Your task to perform on an android device: Open calendar and show me the fourth week of next month Image 0: 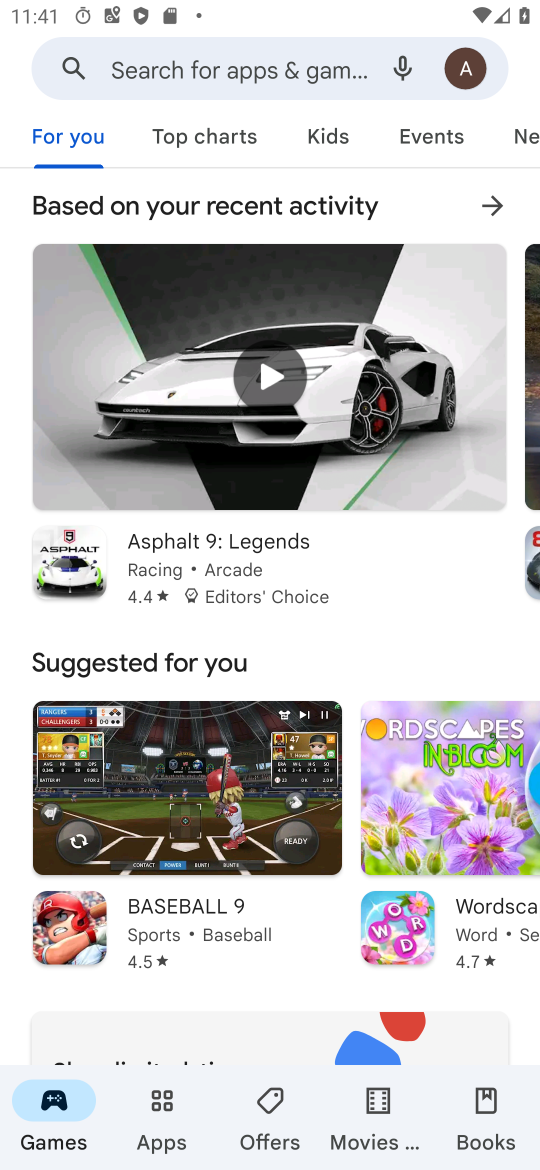
Step 0: press back button
Your task to perform on an android device: Open calendar and show me the fourth week of next month Image 1: 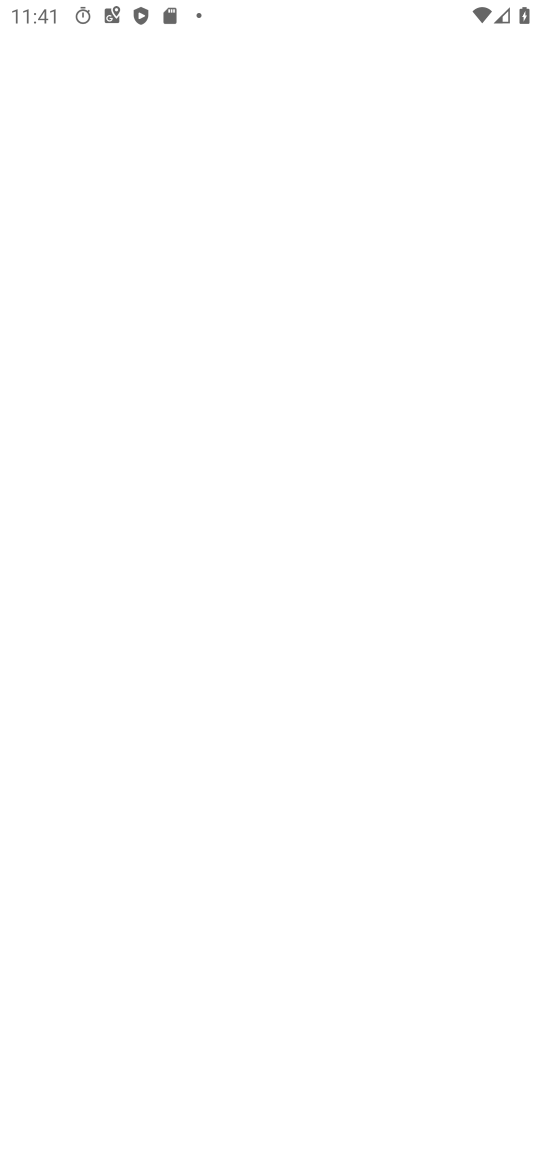
Step 1: press back button
Your task to perform on an android device: Open calendar and show me the fourth week of next month Image 2: 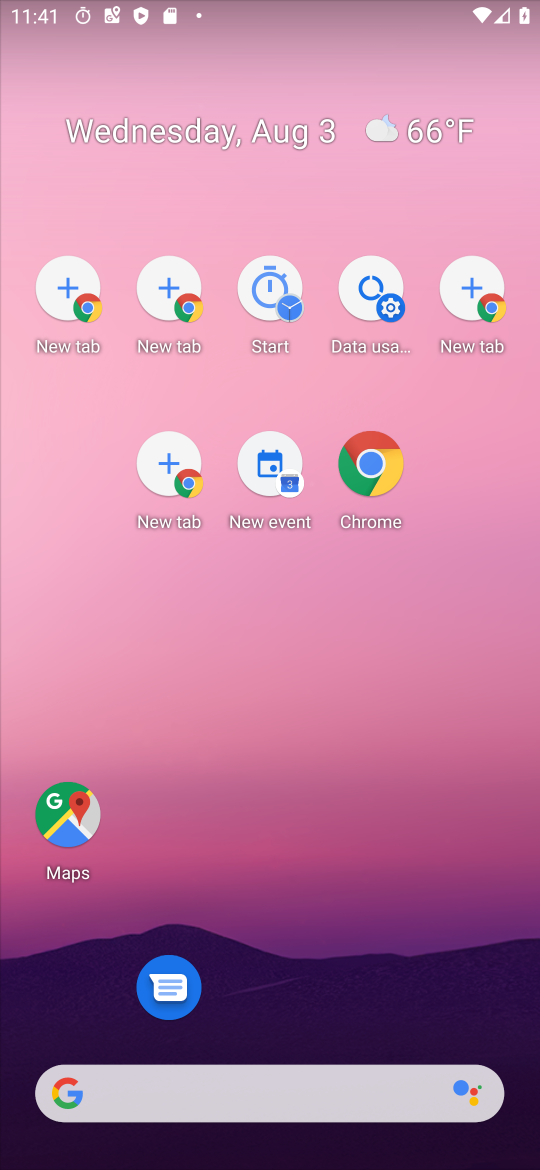
Step 2: drag from (323, 879) to (314, 324)
Your task to perform on an android device: Open calendar and show me the fourth week of next month Image 3: 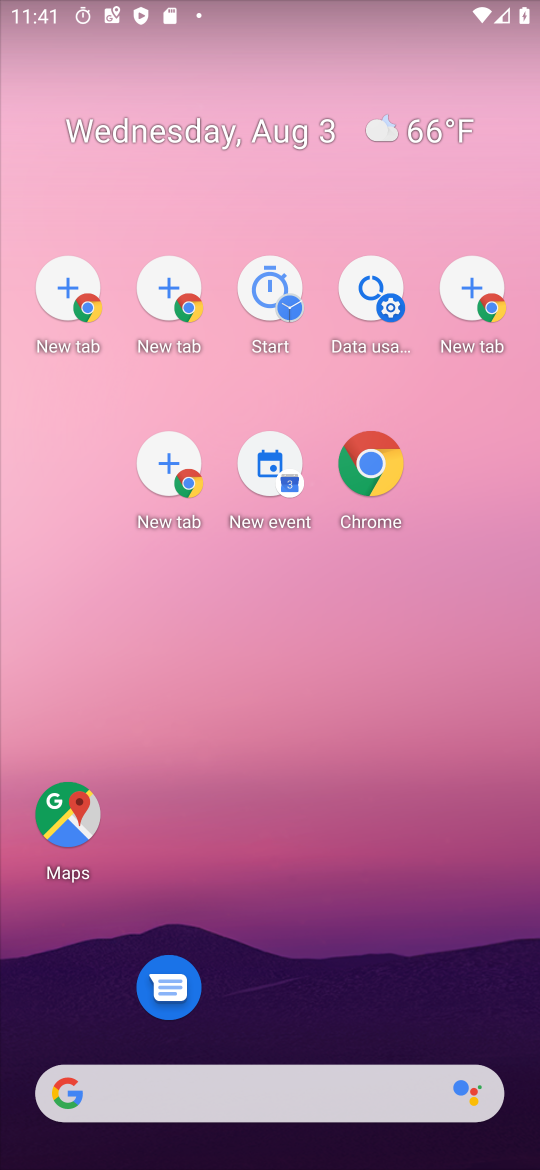
Step 3: click (276, 233)
Your task to perform on an android device: Open calendar and show me the fourth week of next month Image 4: 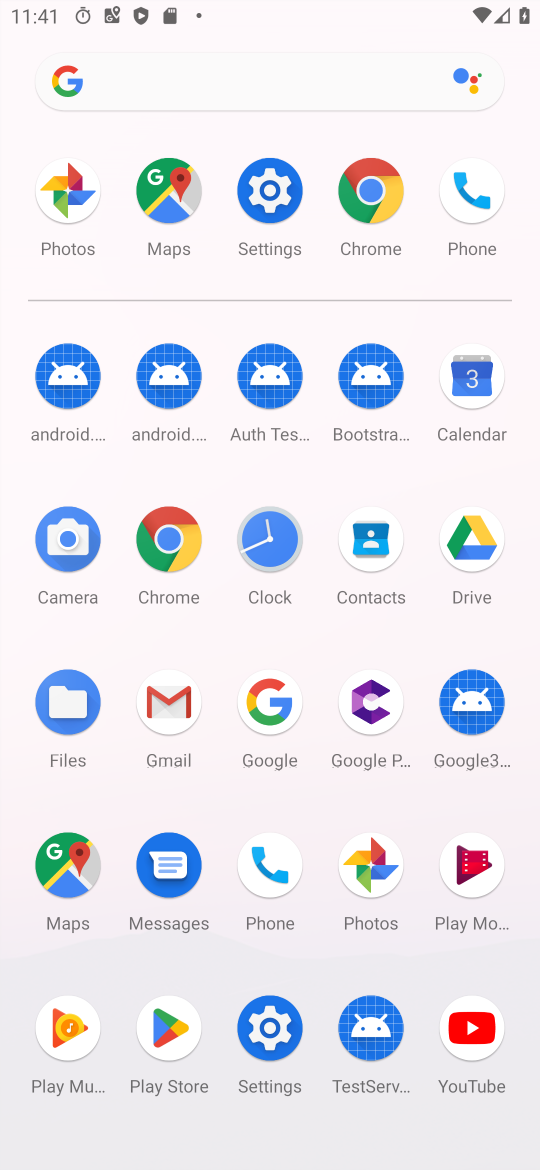
Step 4: click (294, 82)
Your task to perform on an android device: Open calendar and show me the fourth week of next month Image 5: 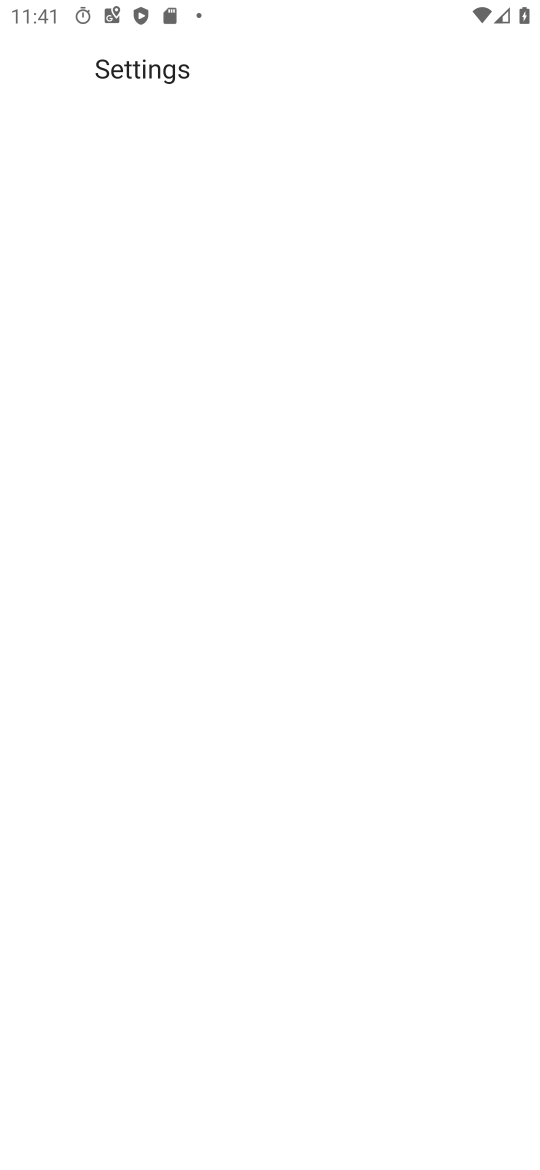
Step 5: drag from (278, 532) to (215, 2)
Your task to perform on an android device: Open calendar and show me the fourth week of next month Image 6: 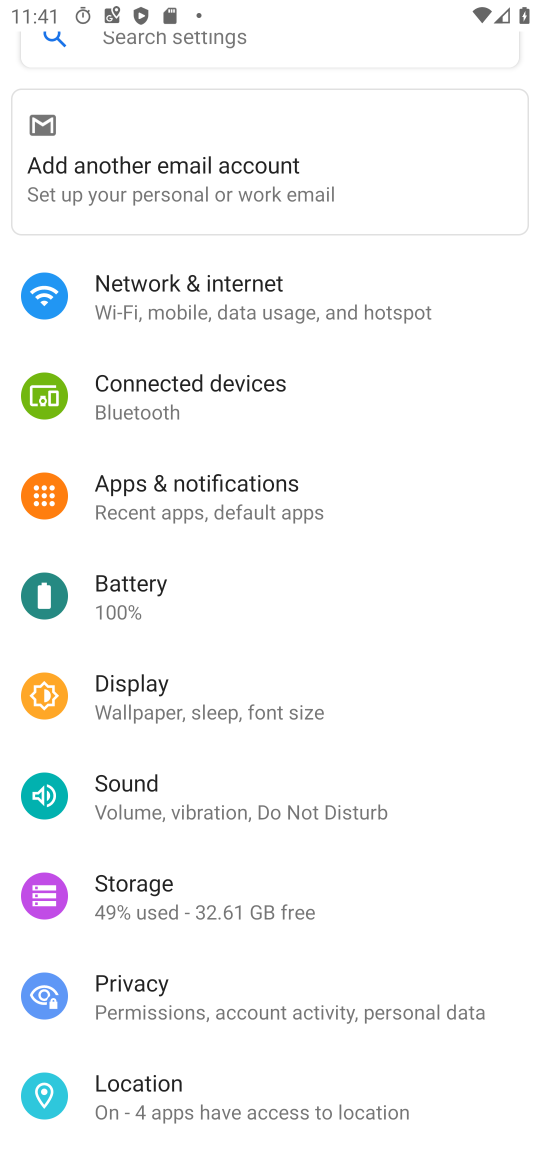
Step 6: press back button
Your task to perform on an android device: Open calendar and show me the fourth week of next month Image 7: 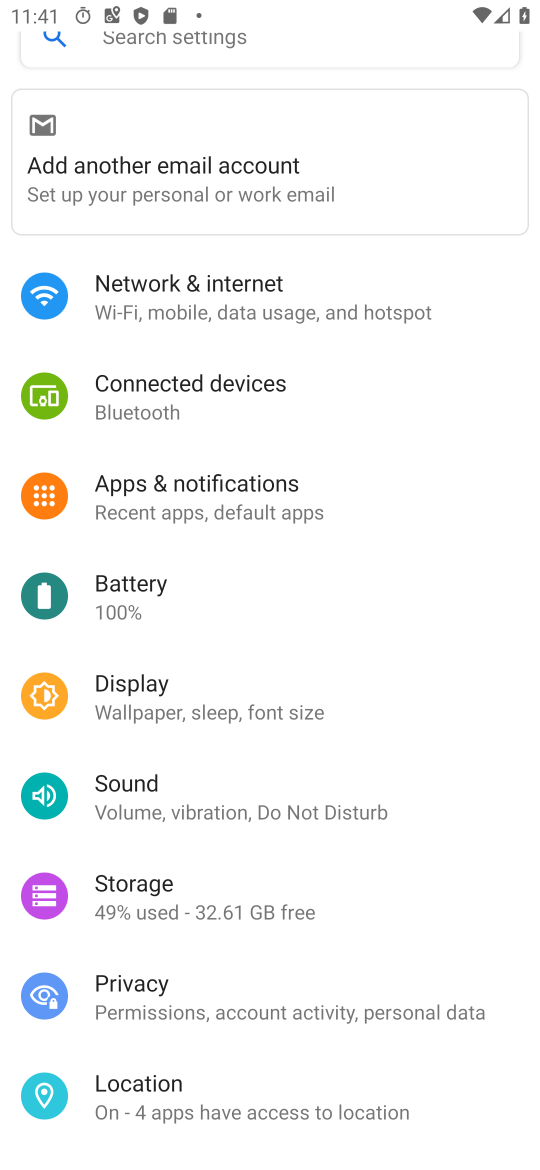
Step 7: press back button
Your task to perform on an android device: Open calendar and show me the fourth week of next month Image 8: 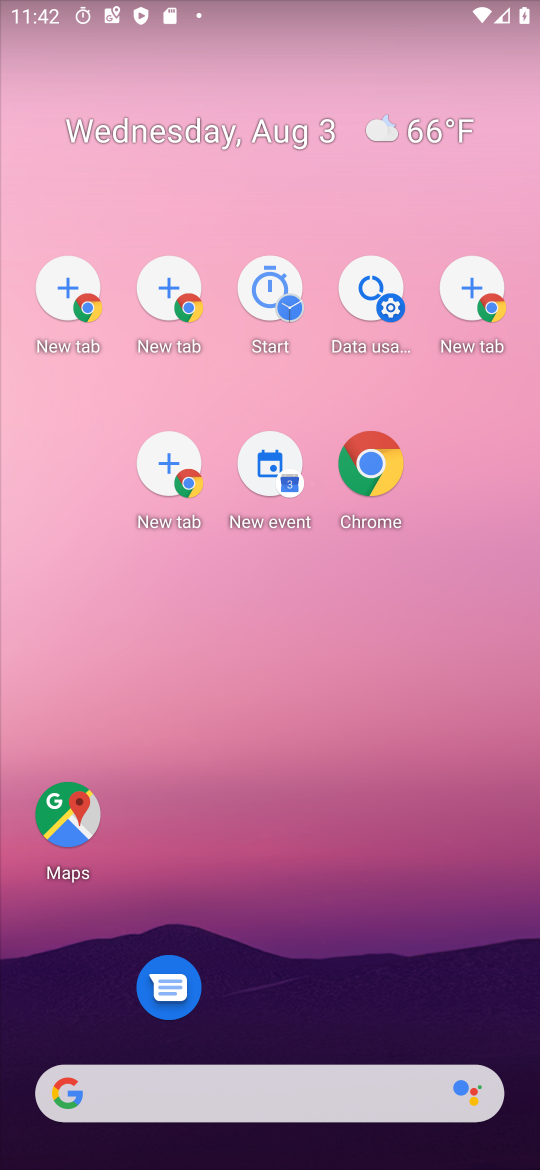
Step 8: drag from (345, 774) to (340, 215)
Your task to perform on an android device: Open calendar and show me the fourth week of next month Image 9: 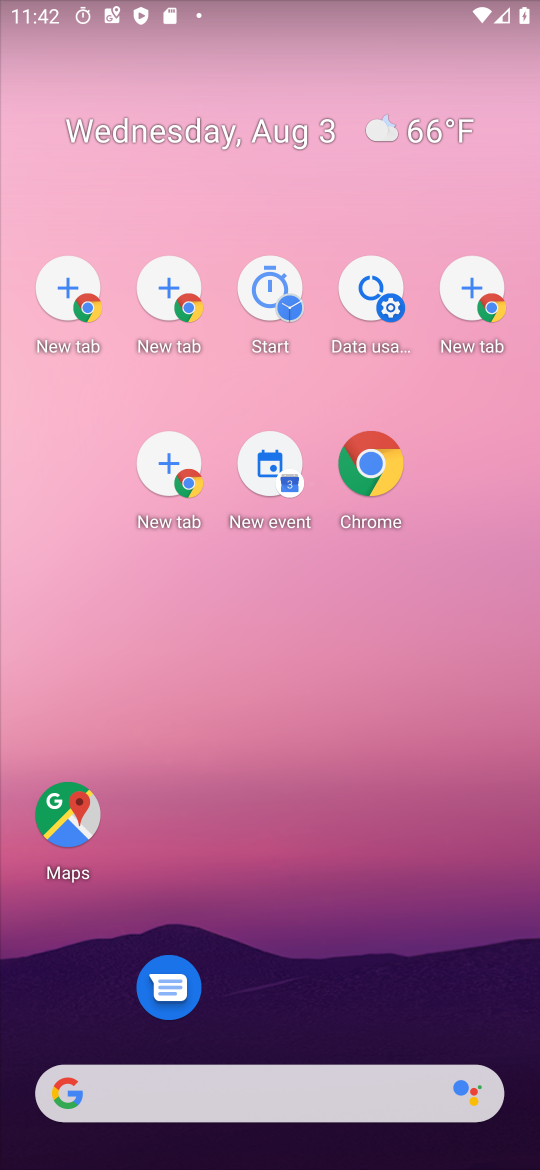
Step 9: drag from (386, 385) to (386, 192)
Your task to perform on an android device: Open calendar and show me the fourth week of next month Image 10: 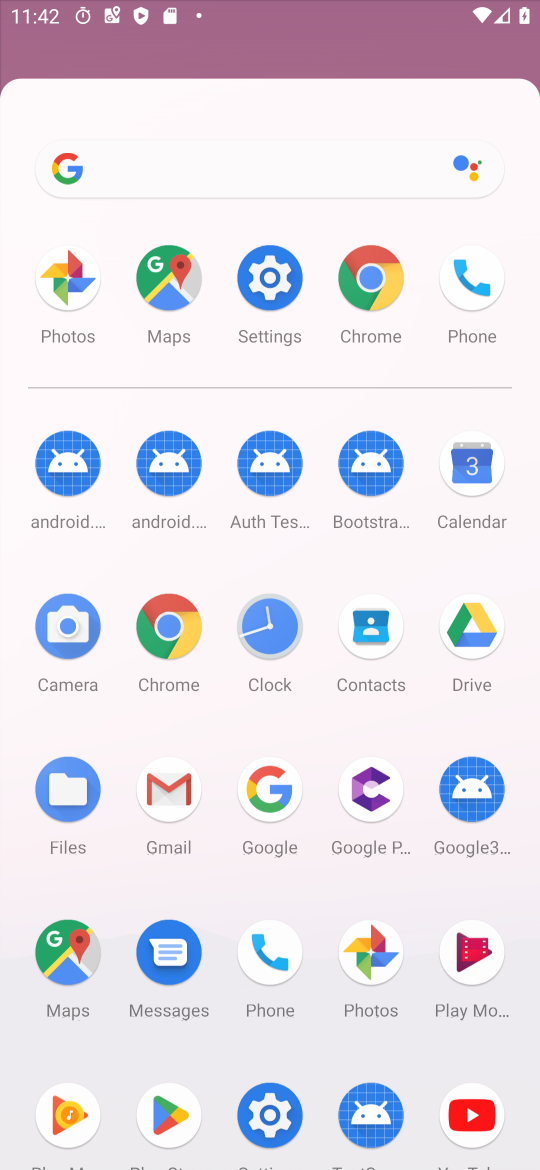
Step 10: drag from (364, 603) to (345, 362)
Your task to perform on an android device: Open calendar and show me the fourth week of next month Image 11: 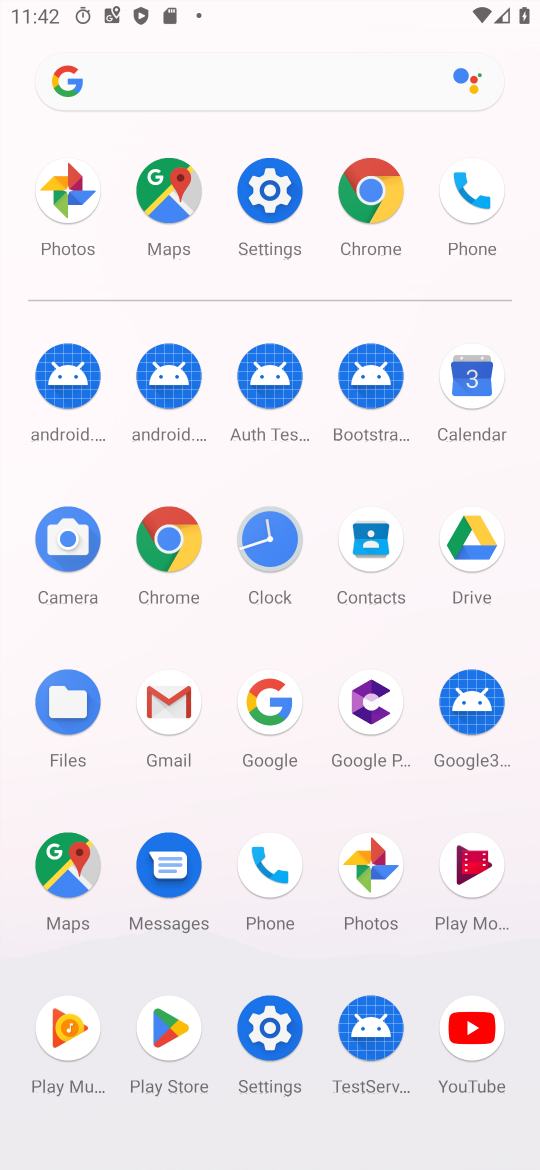
Step 11: drag from (308, 648) to (284, 498)
Your task to perform on an android device: Open calendar and show me the fourth week of next month Image 12: 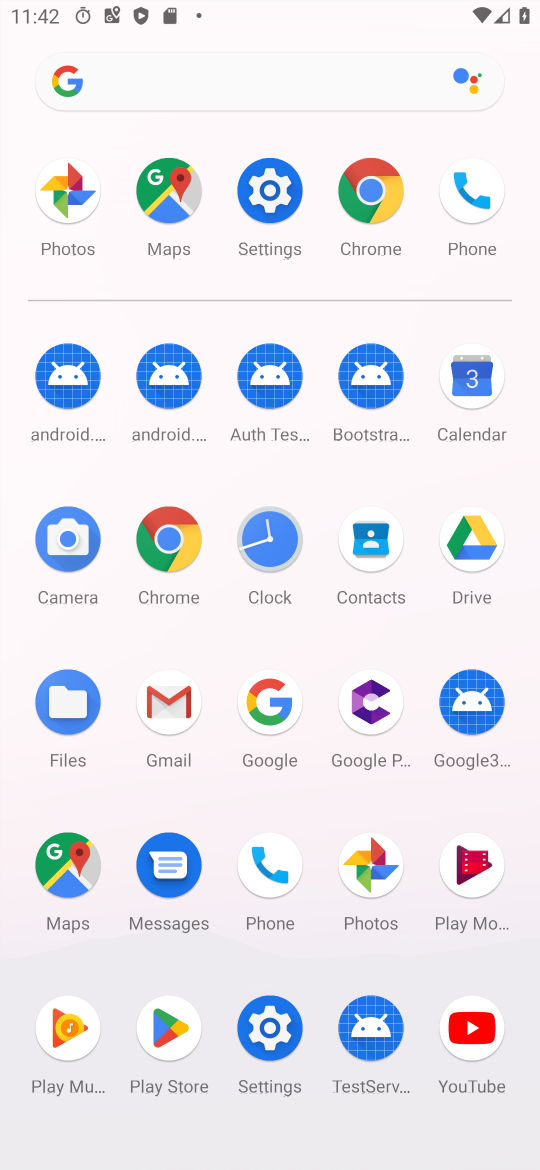
Step 12: click (468, 380)
Your task to perform on an android device: Open calendar and show me the fourth week of next month Image 13: 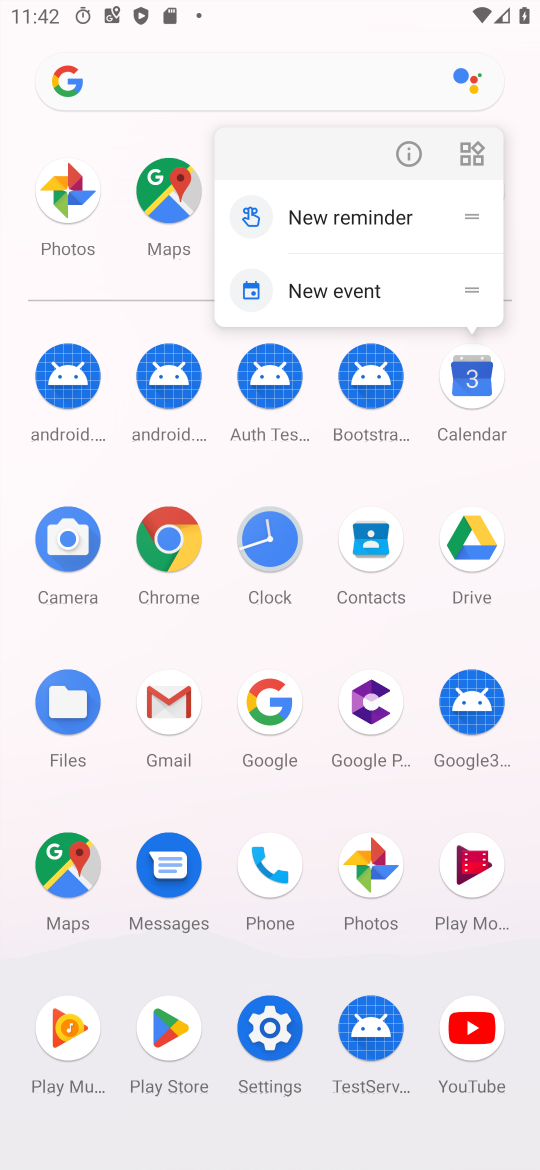
Step 13: click (452, 388)
Your task to perform on an android device: Open calendar and show me the fourth week of next month Image 14: 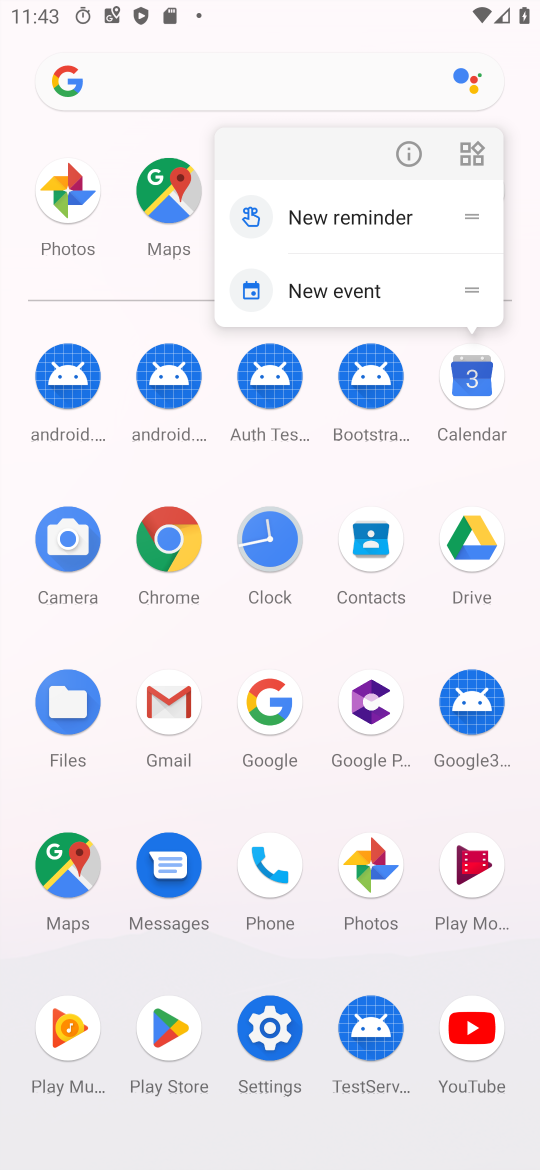
Step 14: click (469, 410)
Your task to perform on an android device: Open calendar and show me the fourth week of next month Image 15: 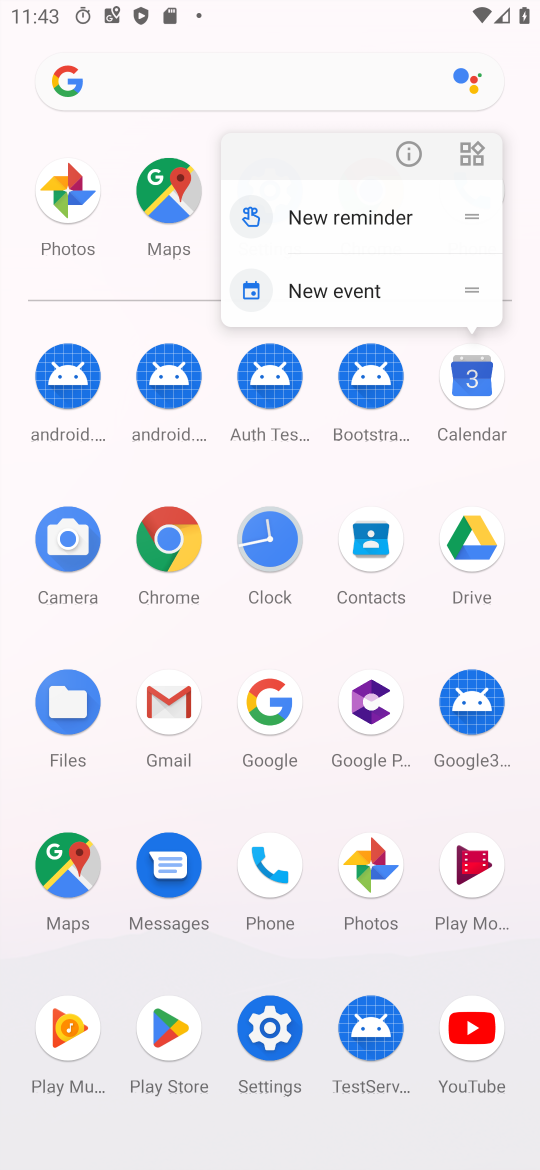
Step 15: click (469, 410)
Your task to perform on an android device: Open calendar and show me the fourth week of next month Image 16: 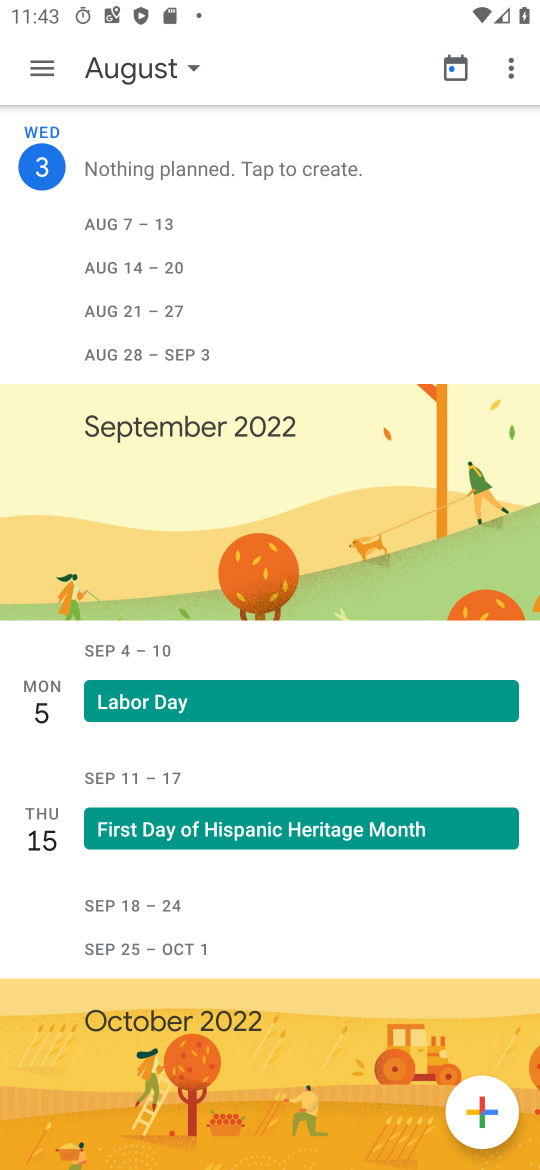
Step 16: click (198, 67)
Your task to perform on an android device: Open calendar and show me the fourth week of next month Image 17: 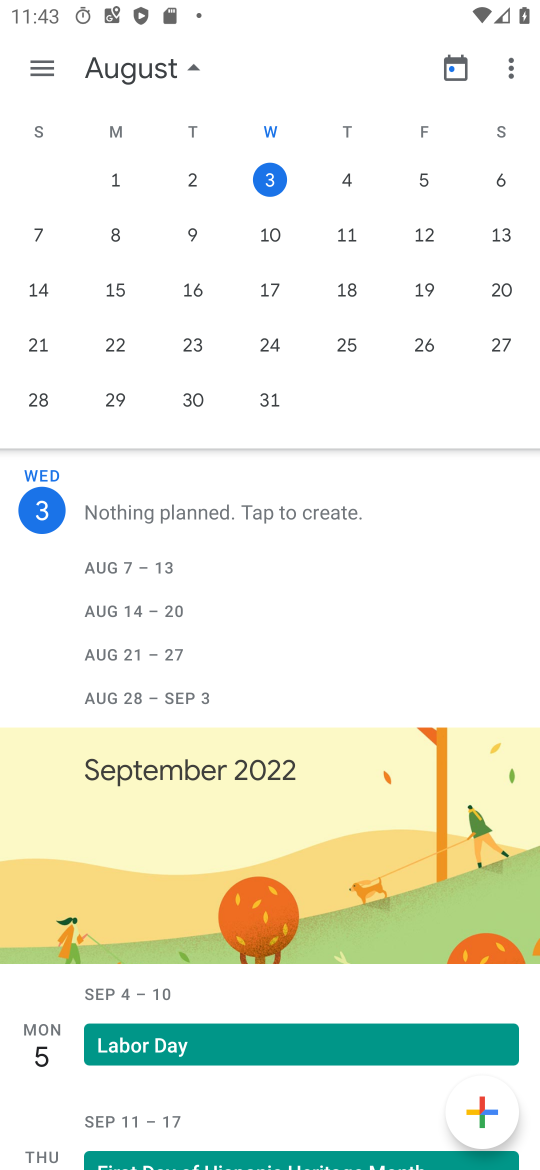
Step 17: drag from (339, 246) to (2, 294)
Your task to perform on an android device: Open calendar and show me the fourth week of next month Image 18: 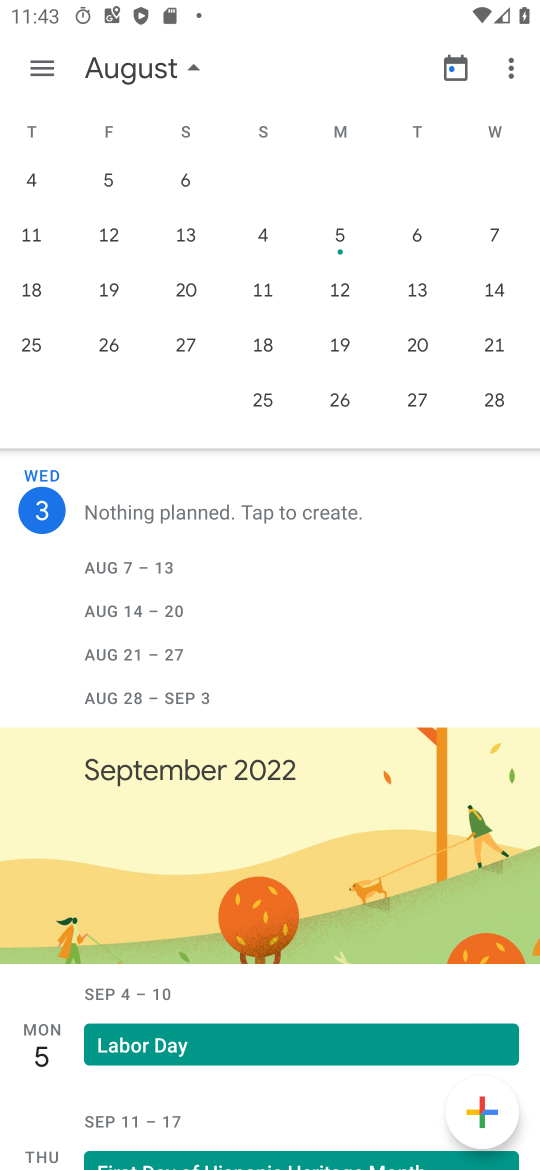
Step 18: drag from (214, 271) to (25, 266)
Your task to perform on an android device: Open calendar and show me the fourth week of next month Image 19: 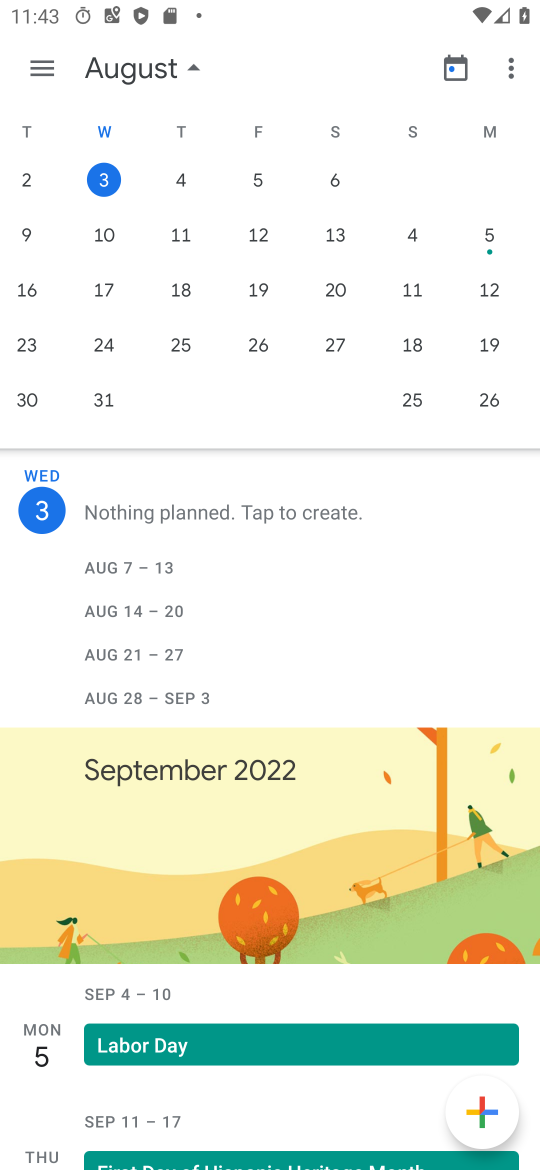
Step 19: drag from (97, 300) to (39, 268)
Your task to perform on an android device: Open calendar and show me the fourth week of next month Image 20: 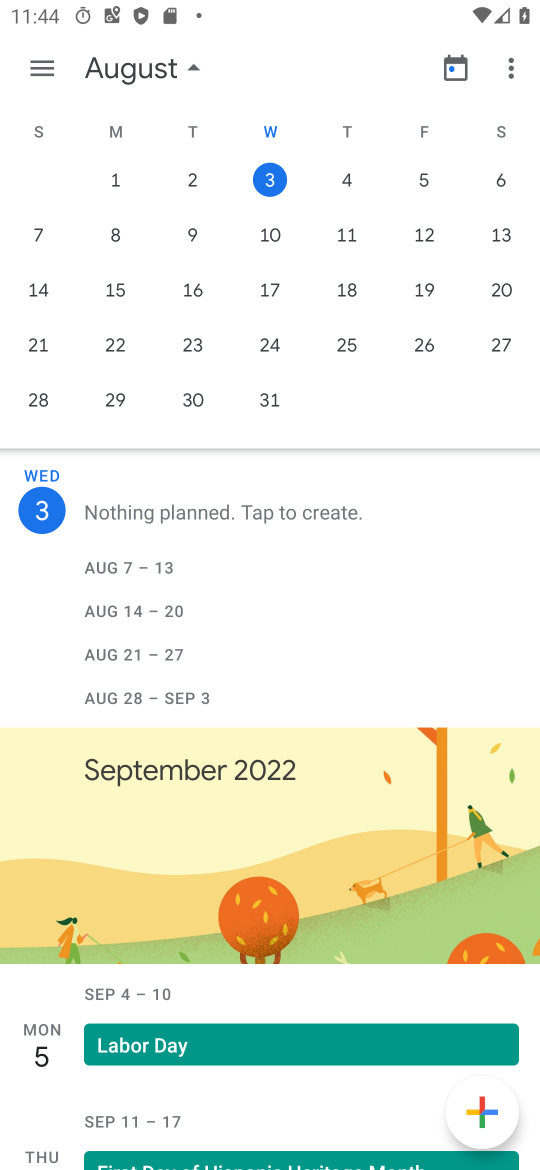
Step 20: drag from (345, 228) to (32, 295)
Your task to perform on an android device: Open calendar and show me the fourth week of next month Image 21: 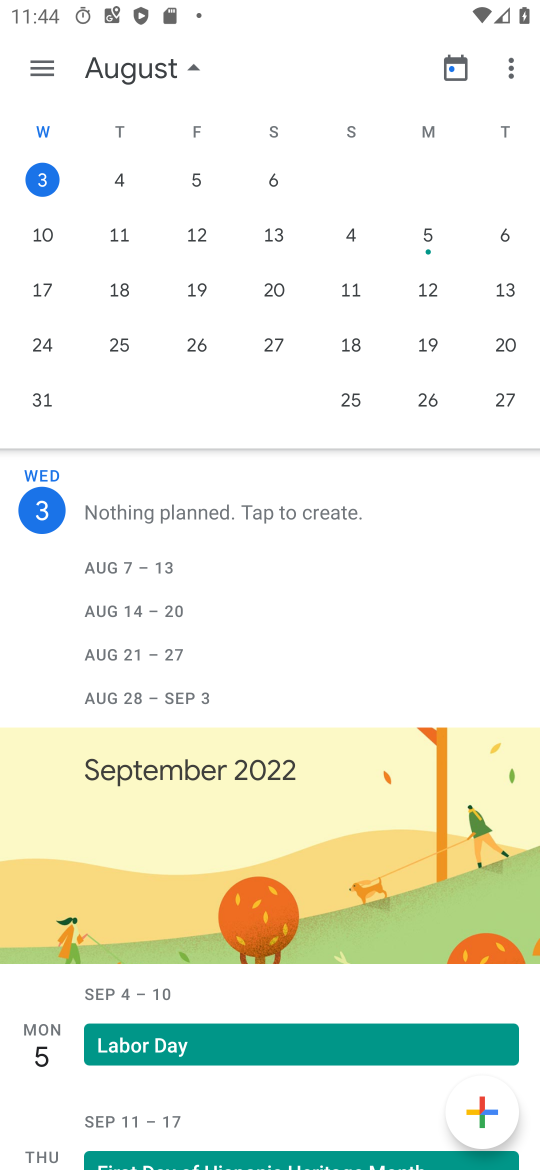
Step 21: click (39, 288)
Your task to perform on an android device: Open calendar and show me the fourth week of next month Image 22: 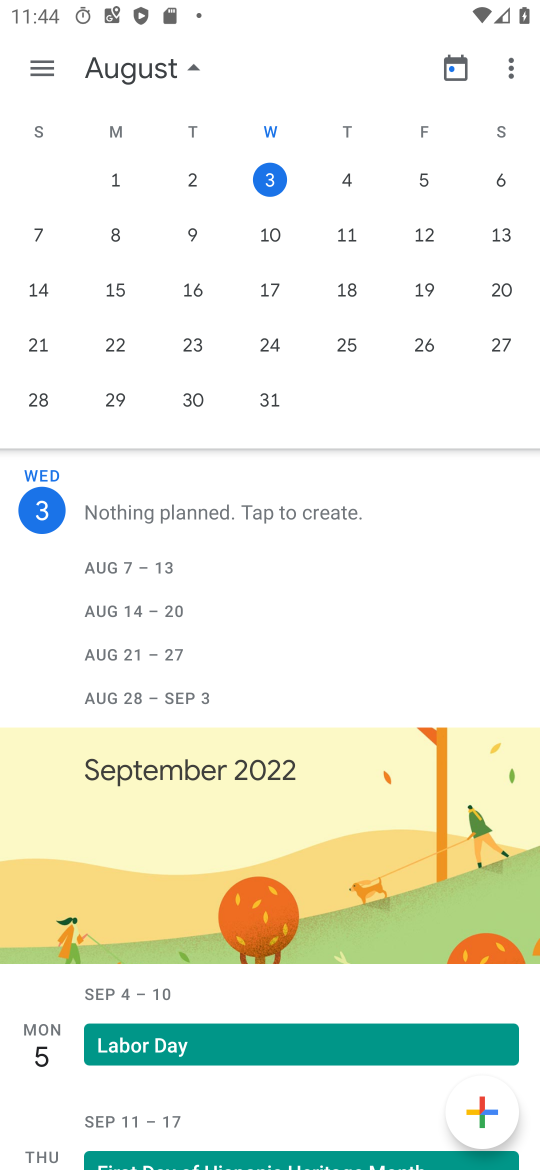
Step 22: drag from (419, 229) to (99, 333)
Your task to perform on an android device: Open calendar and show me the fourth week of next month Image 23: 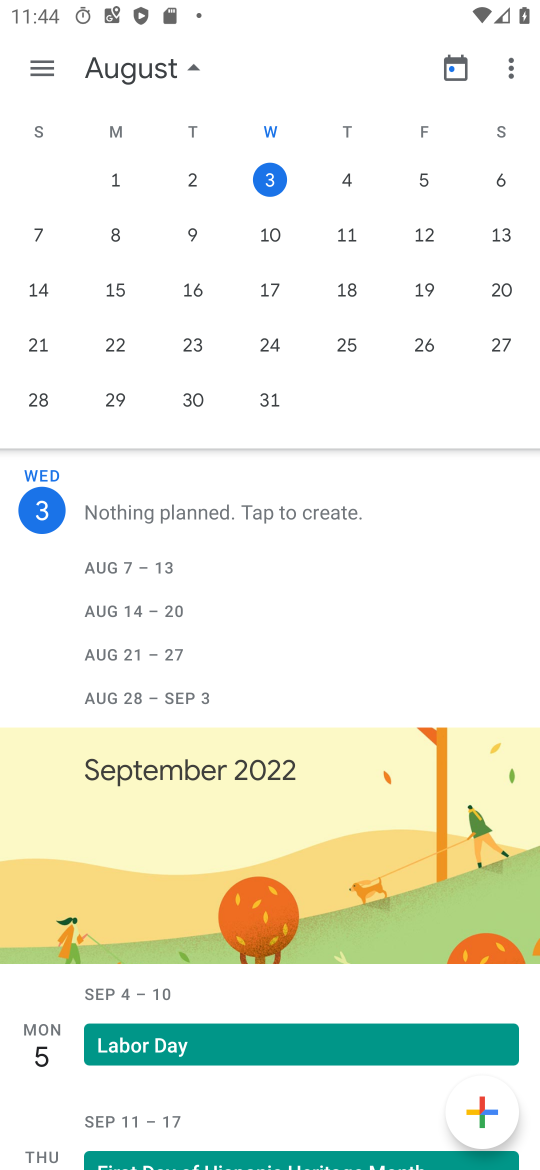
Step 23: drag from (299, 281) to (43, 247)
Your task to perform on an android device: Open calendar and show me the fourth week of next month Image 24: 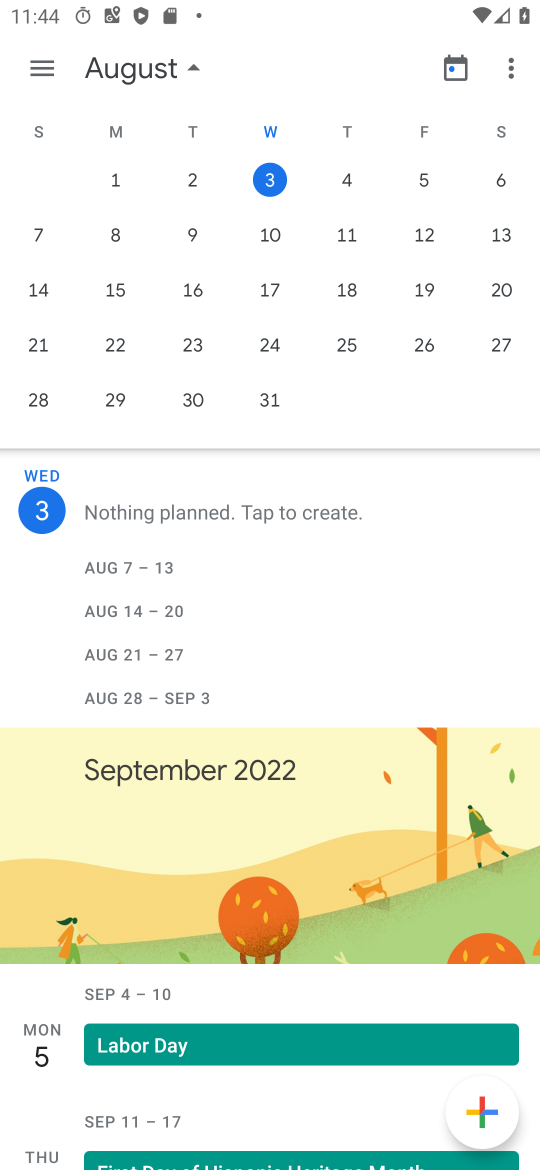
Step 24: drag from (423, 241) to (56, 255)
Your task to perform on an android device: Open calendar and show me the fourth week of next month Image 25: 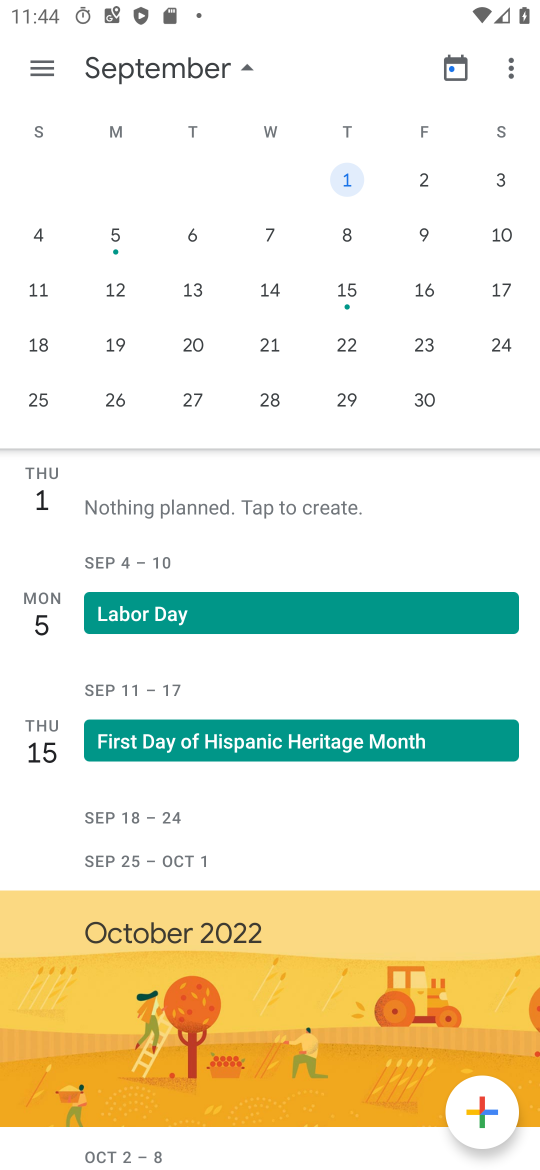
Step 25: click (263, 330)
Your task to perform on an android device: Open calendar and show me the fourth week of next month Image 26: 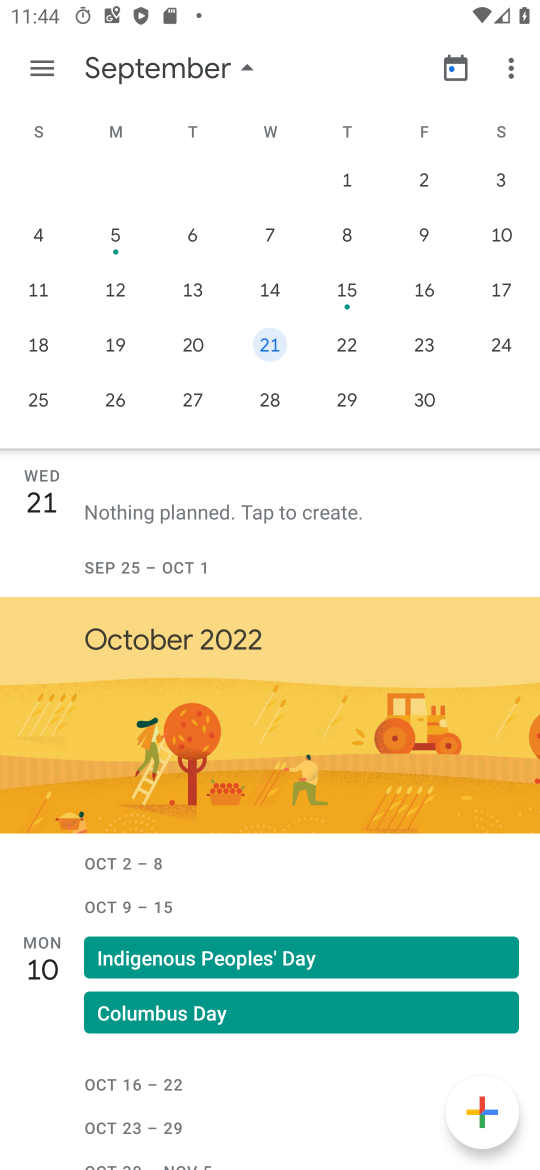
Step 26: task complete